Your task to perform on an android device: View the shopping cart on costco.com. Add usb-b to the cart on costco.com Image 0: 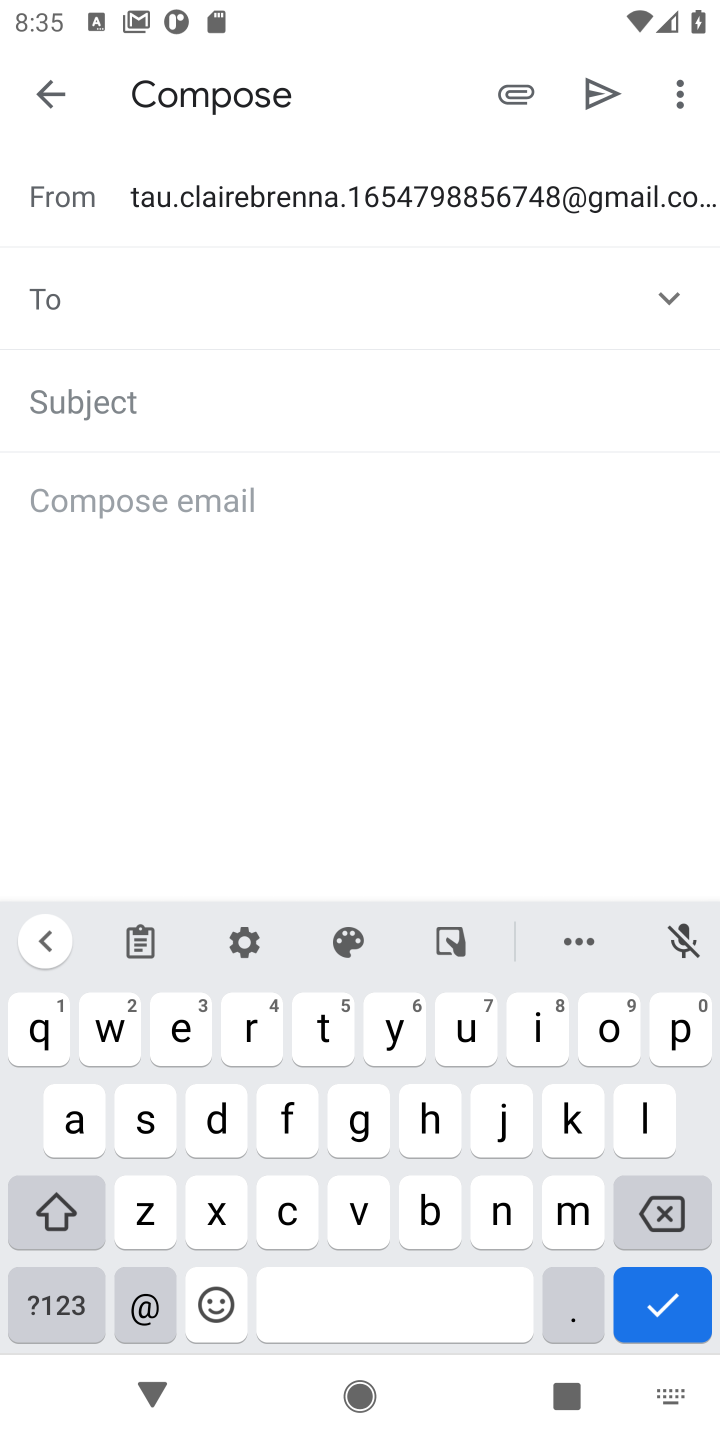
Step 0: press home button
Your task to perform on an android device: View the shopping cart on costco.com. Add usb-b to the cart on costco.com Image 1: 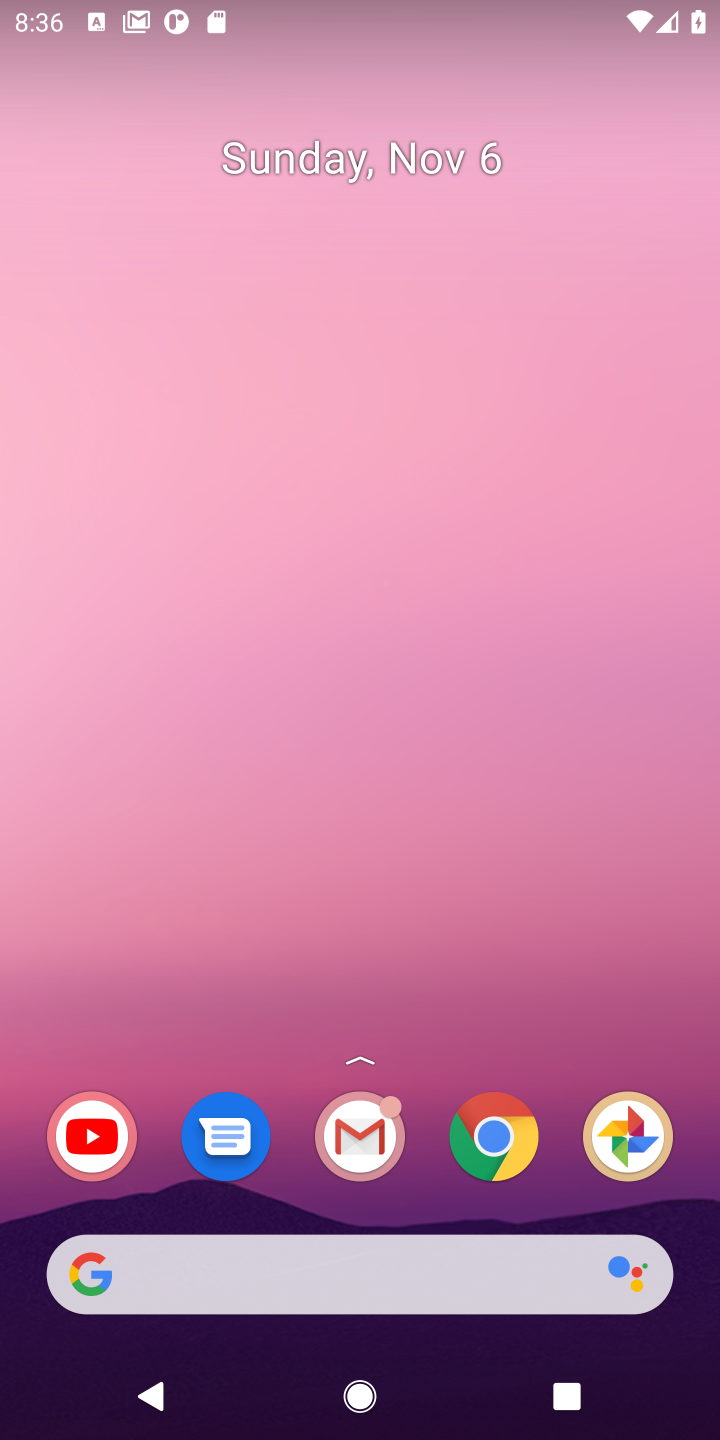
Step 1: click (365, 1273)
Your task to perform on an android device: View the shopping cart on costco.com. Add usb-b to the cart on costco.com Image 2: 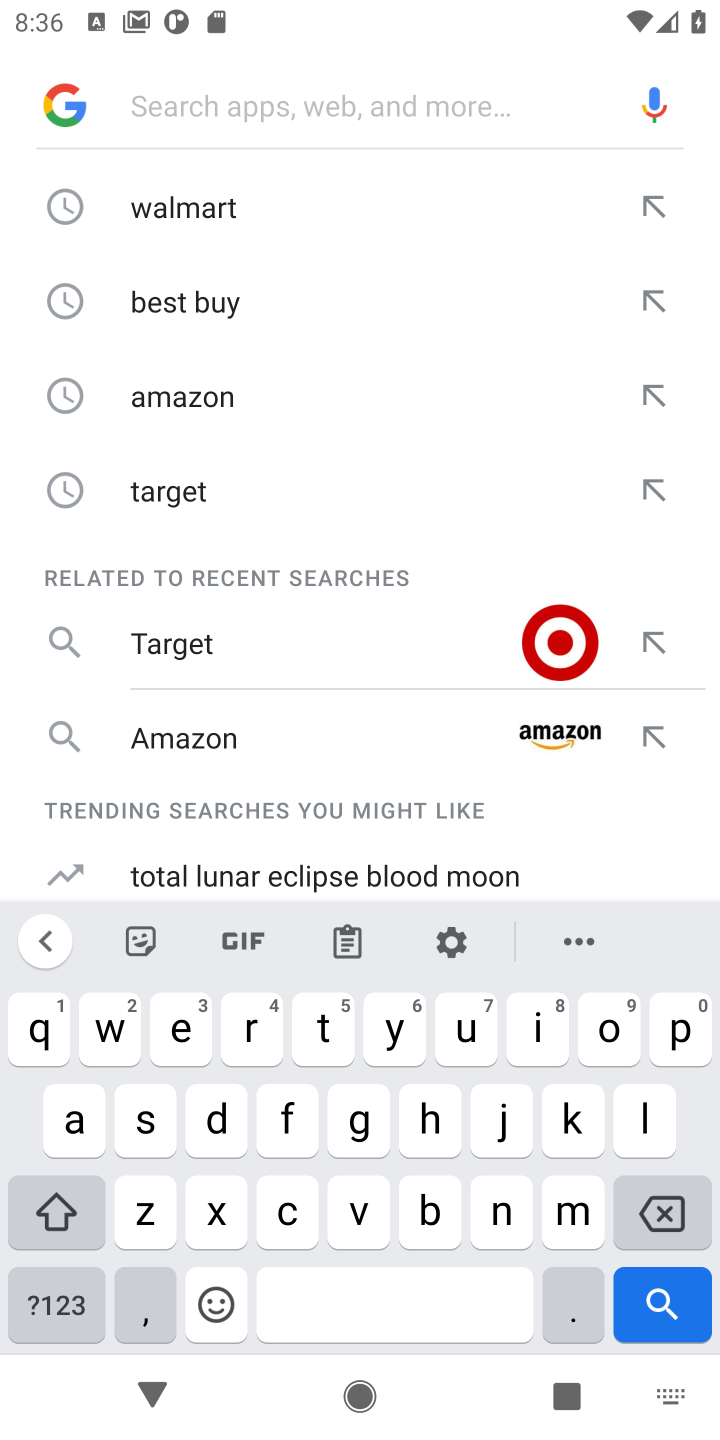
Step 2: type "costco"
Your task to perform on an android device: View the shopping cart on costco.com. Add usb-b to the cart on costco.com Image 3: 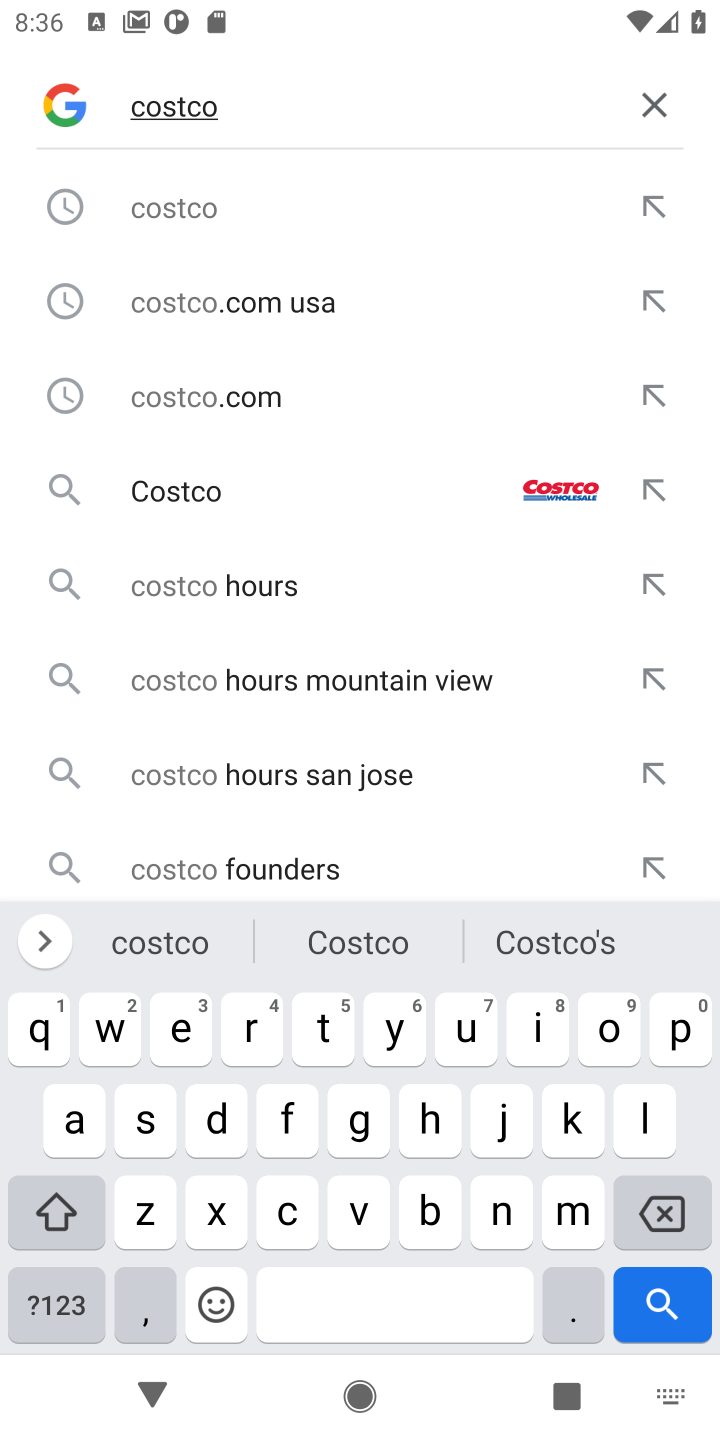
Step 3: click (429, 490)
Your task to perform on an android device: View the shopping cart on costco.com. Add usb-b to the cart on costco.com Image 4: 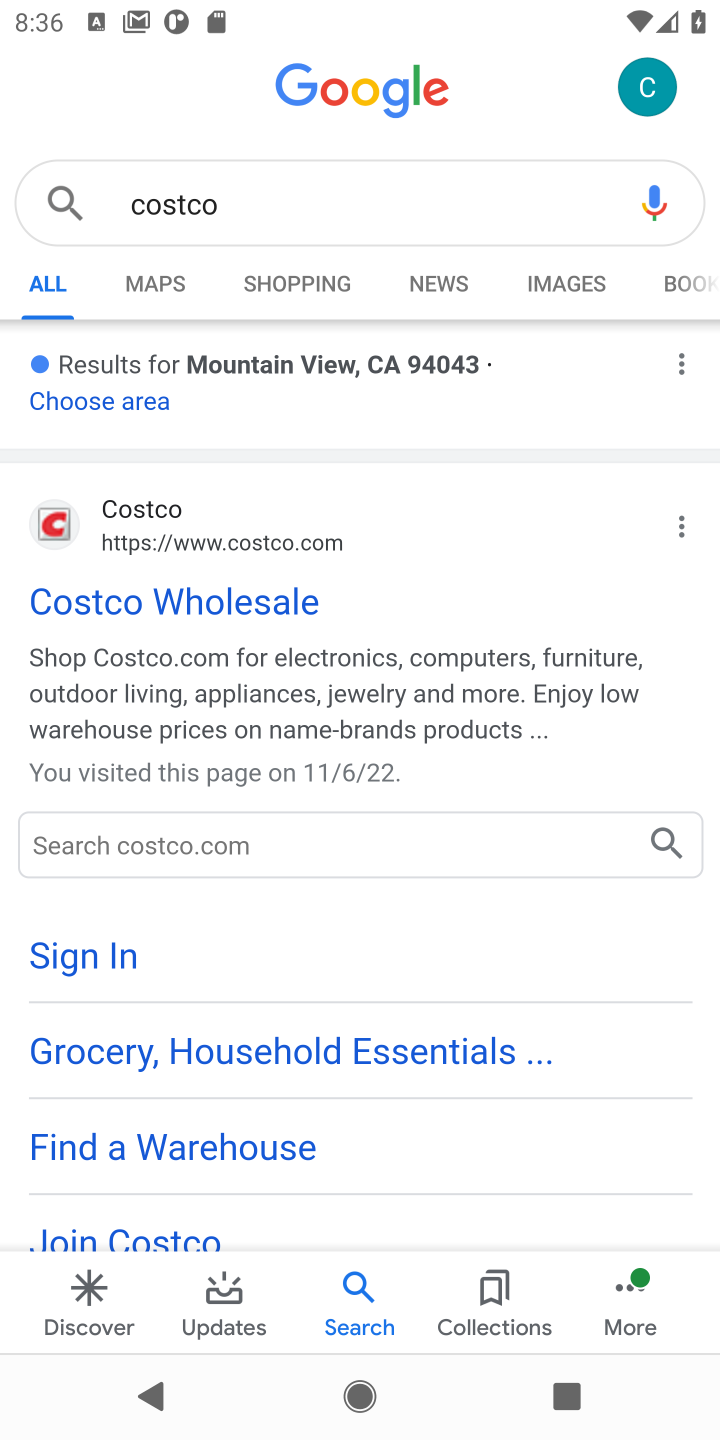
Step 4: click (137, 516)
Your task to perform on an android device: View the shopping cart on costco.com. Add usb-b to the cart on costco.com Image 5: 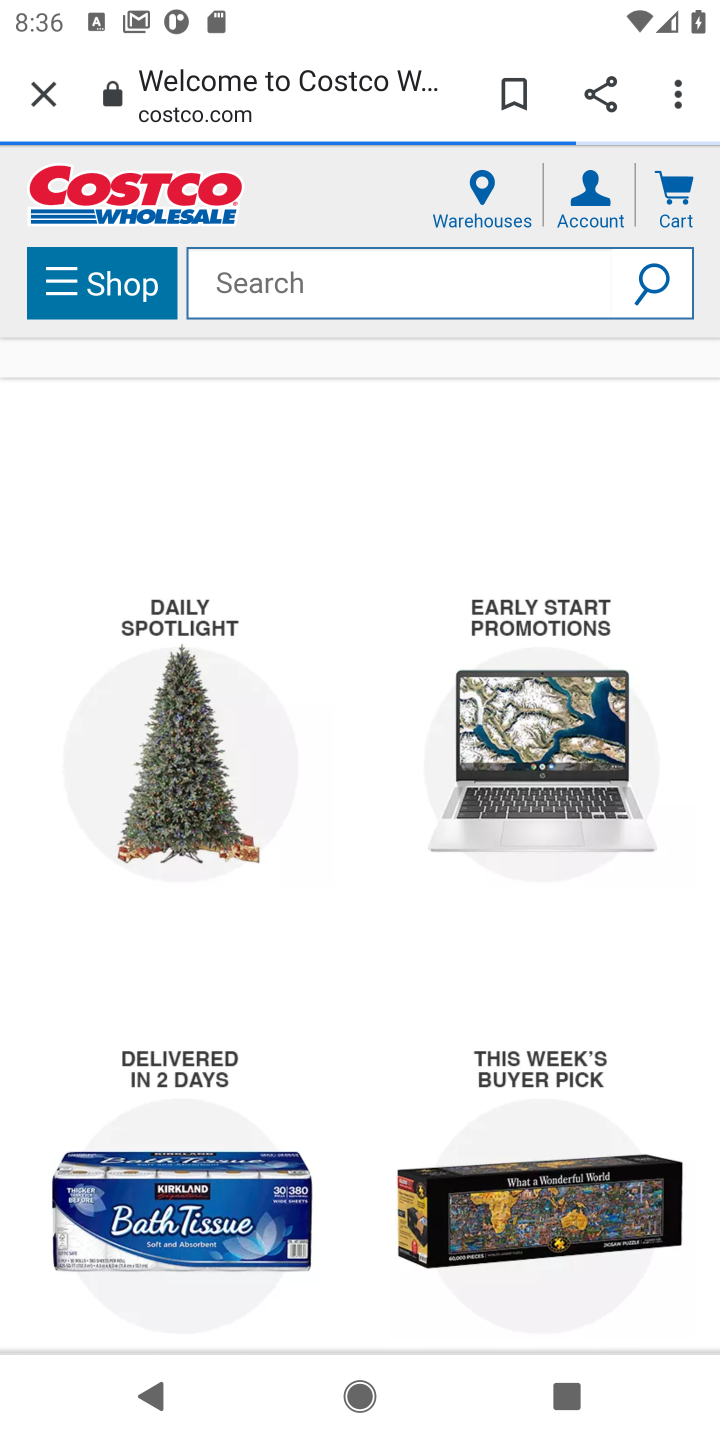
Step 5: task complete